Your task to perform on an android device: turn off notifications settings in the gmail app Image 0: 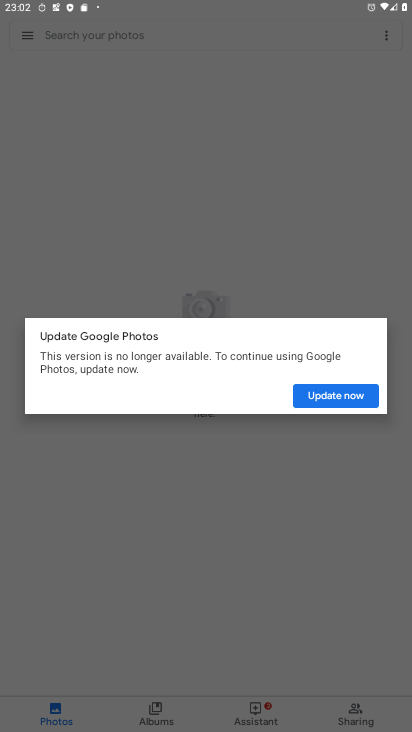
Step 0: press home button
Your task to perform on an android device: turn off notifications settings in the gmail app Image 1: 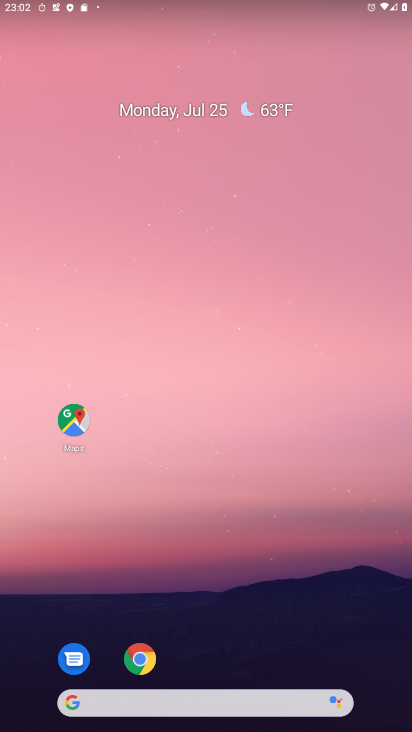
Step 1: drag from (222, 716) to (226, 70)
Your task to perform on an android device: turn off notifications settings in the gmail app Image 2: 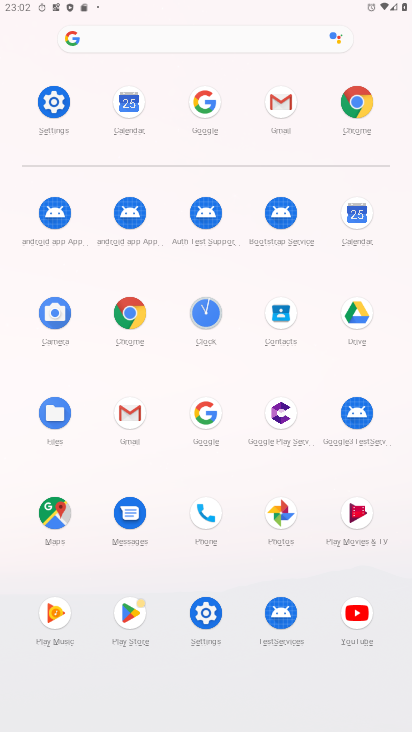
Step 2: click (280, 105)
Your task to perform on an android device: turn off notifications settings in the gmail app Image 3: 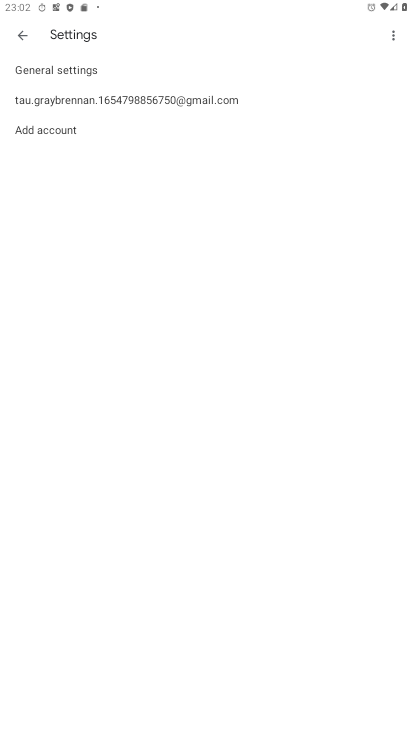
Step 3: click (115, 96)
Your task to perform on an android device: turn off notifications settings in the gmail app Image 4: 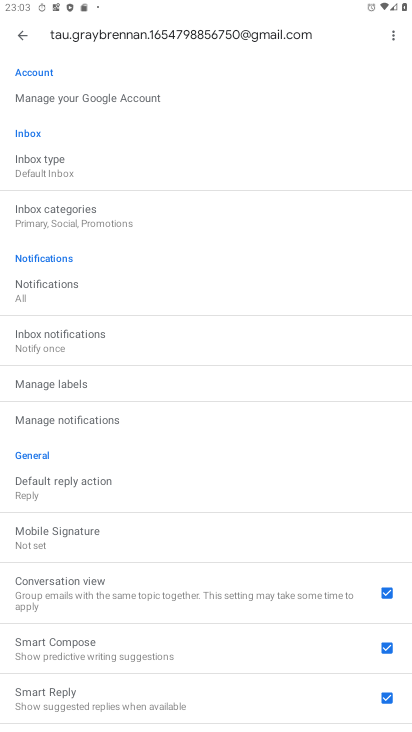
Step 4: click (47, 292)
Your task to perform on an android device: turn off notifications settings in the gmail app Image 5: 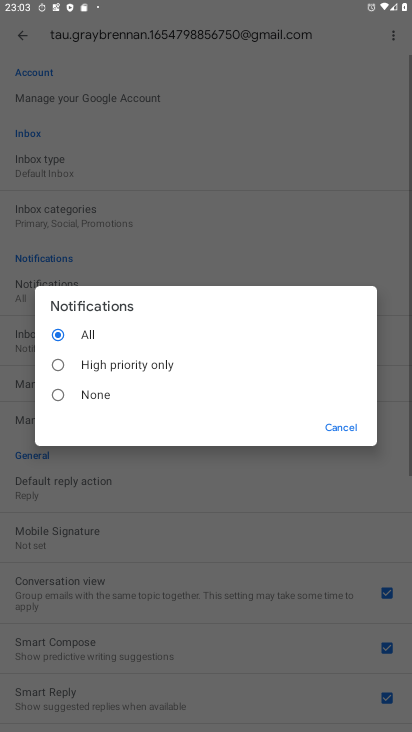
Step 5: click (51, 388)
Your task to perform on an android device: turn off notifications settings in the gmail app Image 6: 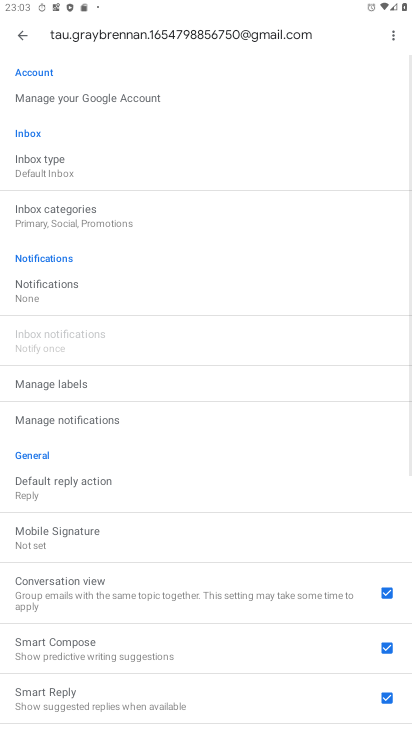
Step 6: task complete